Your task to perform on an android device: Clear the cart on ebay. Search for bose soundlink on ebay, select the first entry, add it to the cart, then select checkout. Image 0: 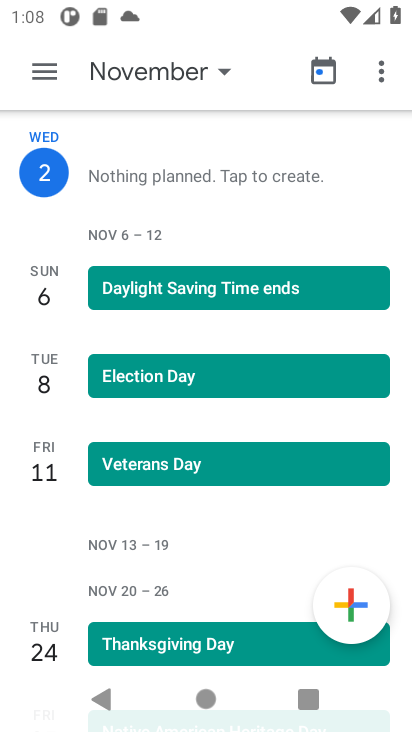
Step 0: press home button
Your task to perform on an android device: Clear the cart on ebay. Search for bose soundlink on ebay, select the first entry, add it to the cart, then select checkout. Image 1: 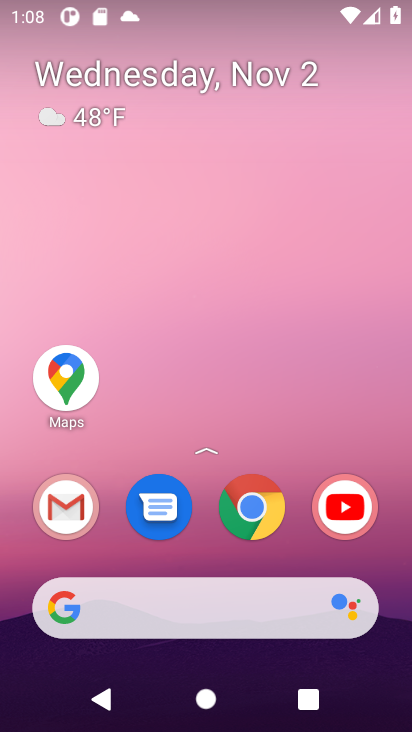
Step 1: click (182, 605)
Your task to perform on an android device: Clear the cart on ebay. Search for bose soundlink on ebay, select the first entry, add it to the cart, then select checkout. Image 2: 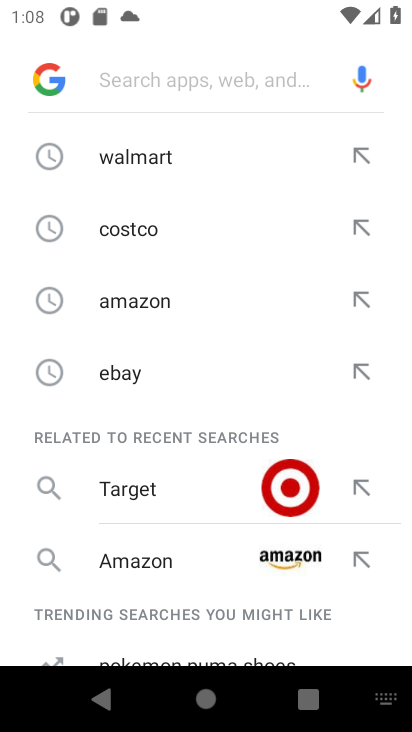
Step 2: type "ebay"
Your task to perform on an android device: Clear the cart on ebay. Search for bose soundlink on ebay, select the first entry, add it to the cart, then select checkout. Image 3: 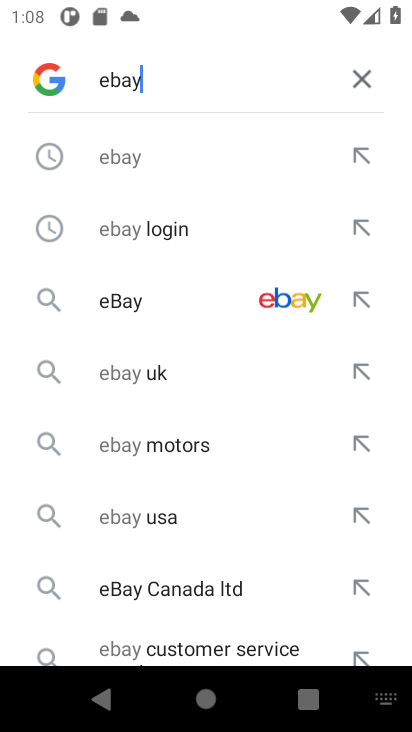
Step 3: type ""
Your task to perform on an android device: Clear the cart on ebay. Search for bose soundlink on ebay, select the first entry, add it to the cart, then select checkout. Image 4: 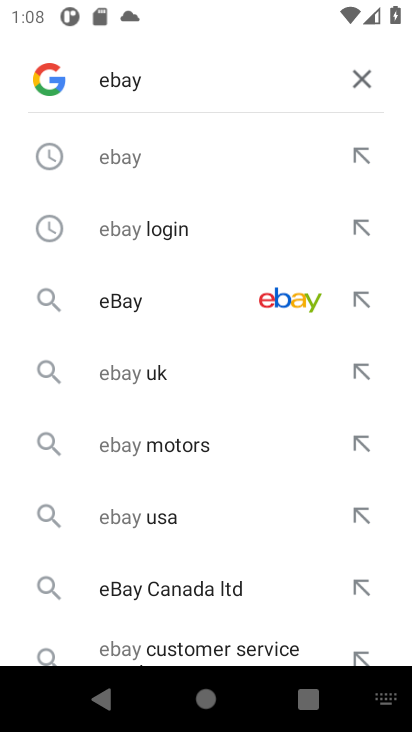
Step 4: click (136, 161)
Your task to perform on an android device: Clear the cart on ebay. Search for bose soundlink on ebay, select the first entry, add it to the cart, then select checkout. Image 5: 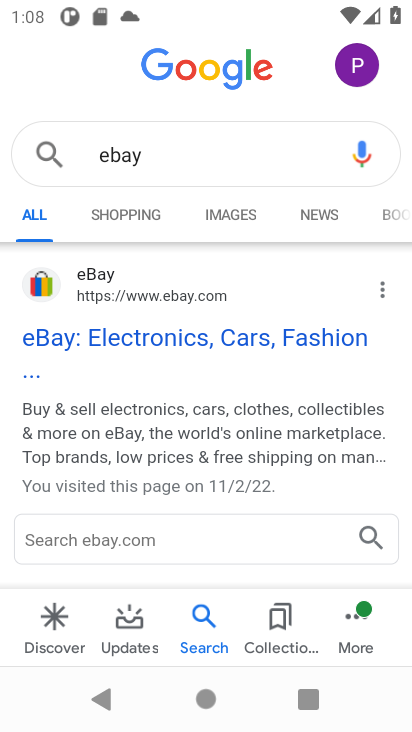
Step 5: click (133, 271)
Your task to perform on an android device: Clear the cart on ebay. Search for bose soundlink on ebay, select the first entry, add it to the cart, then select checkout. Image 6: 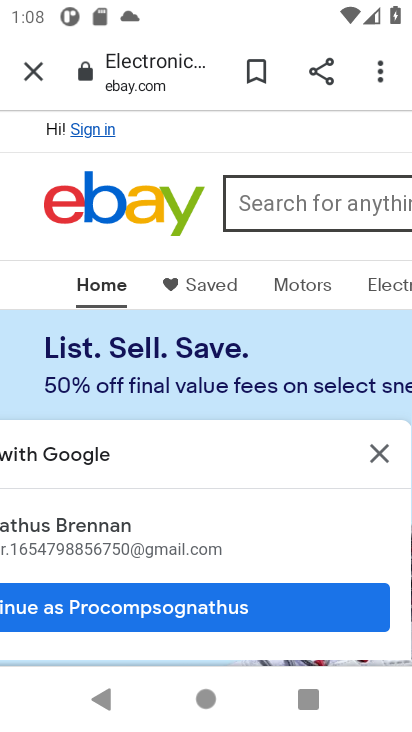
Step 6: click (295, 213)
Your task to perform on an android device: Clear the cart on ebay. Search for bose soundlink on ebay, select the first entry, add it to the cart, then select checkout. Image 7: 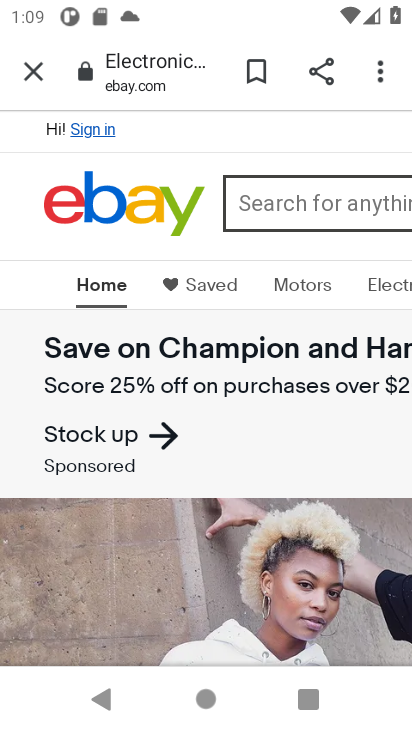
Step 7: click (281, 205)
Your task to perform on an android device: Clear the cart on ebay. Search for bose soundlink on ebay, select the first entry, add it to the cart, then select checkout. Image 8: 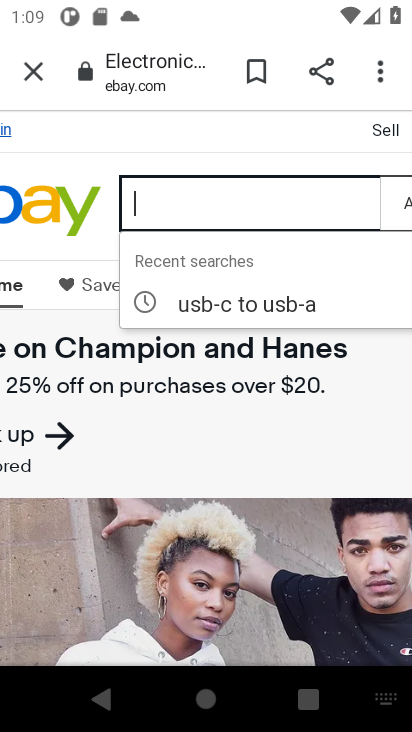
Step 8: type "bose soundlink "
Your task to perform on an android device: Clear the cart on ebay. Search for bose soundlink on ebay, select the first entry, add it to the cart, then select checkout. Image 9: 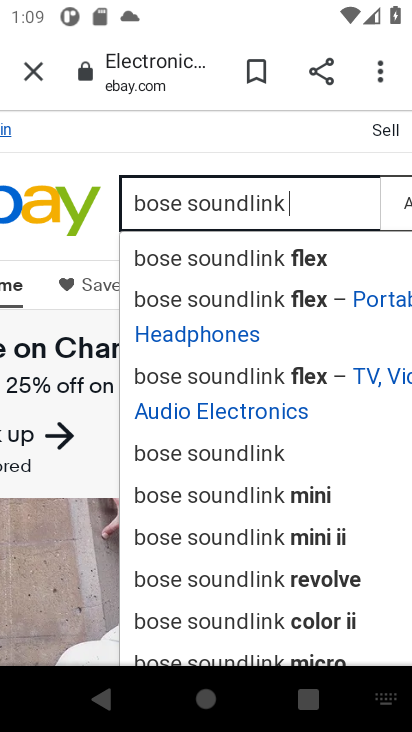
Step 9: type ""
Your task to perform on an android device: Clear the cart on ebay. Search for bose soundlink on ebay, select the first entry, add it to the cart, then select checkout. Image 10: 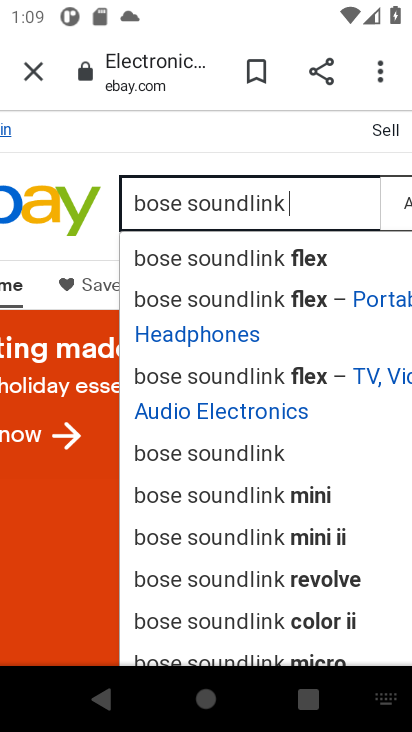
Step 10: click (274, 447)
Your task to perform on an android device: Clear the cart on ebay. Search for bose soundlink on ebay, select the first entry, add it to the cart, then select checkout. Image 11: 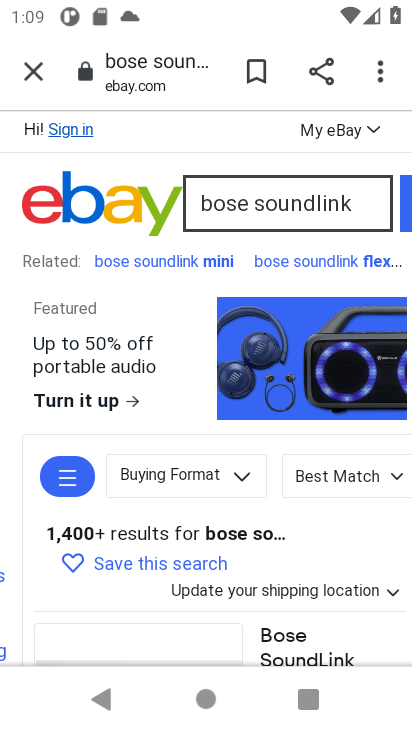
Step 11: drag from (250, 403) to (243, 347)
Your task to perform on an android device: Clear the cart on ebay. Search for bose soundlink on ebay, select the first entry, add it to the cart, then select checkout. Image 12: 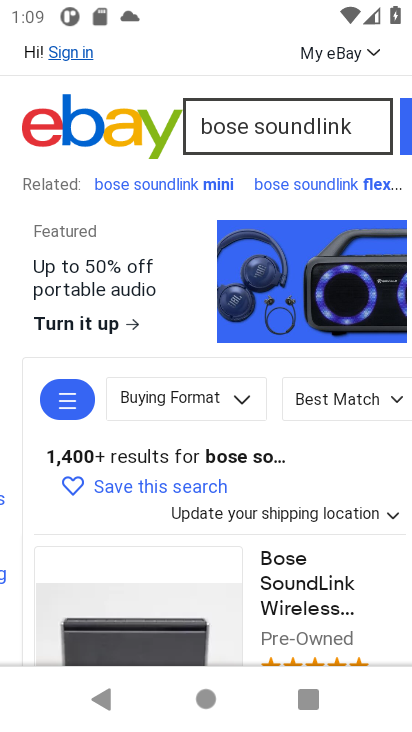
Step 12: drag from (246, 538) to (272, 334)
Your task to perform on an android device: Clear the cart on ebay. Search for bose soundlink on ebay, select the first entry, add it to the cart, then select checkout. Image 13: 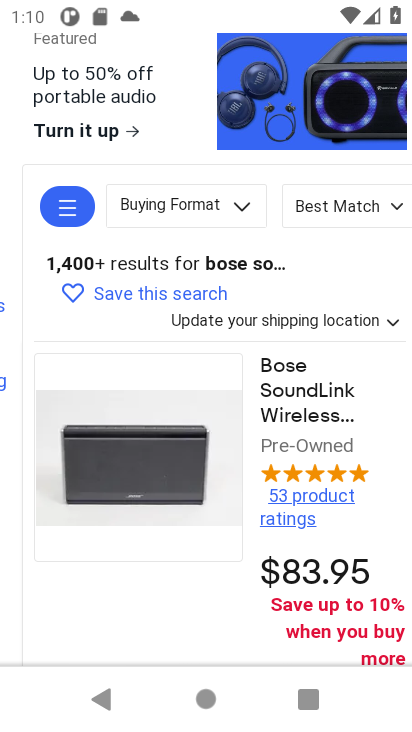
Step 13: click (302, 396)
Your task to perform on an android device: Clear the cart on ebay. Search for bose soundlink on ebay, select the first entry, add it to the cart, then select checkout. Image 14: 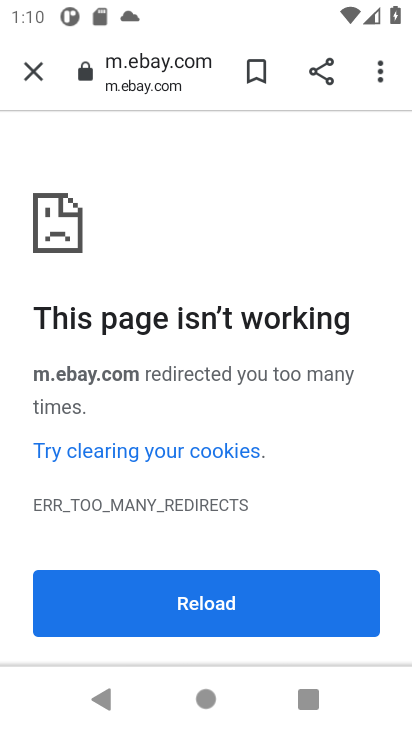
Step 14: task complete